Your task to perform on an android device: turn off location Image 0: 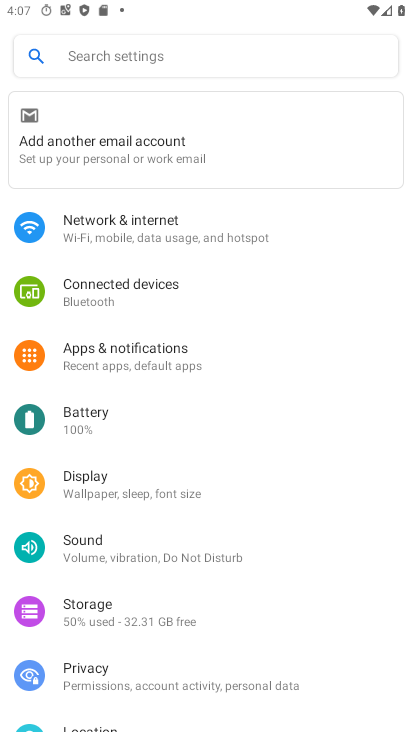
Step 0: drag from (225, 602) to (227, 166)
Your task to perform on an android device: turn off location Image 1: 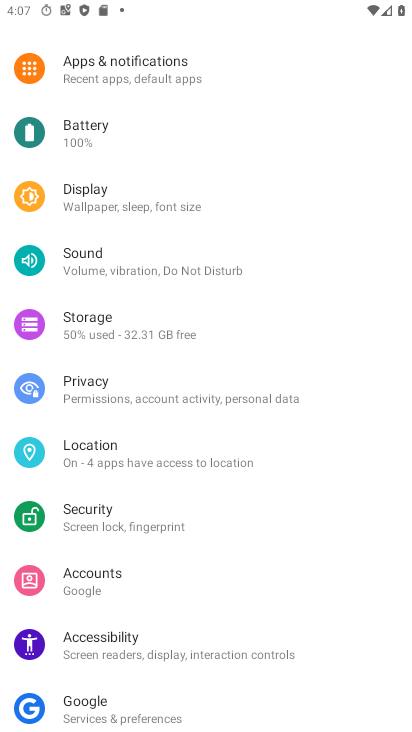
Step 1: drag from (227, 510) to (243, 159)
Your task to perform on an android device: turn off location Image 2: 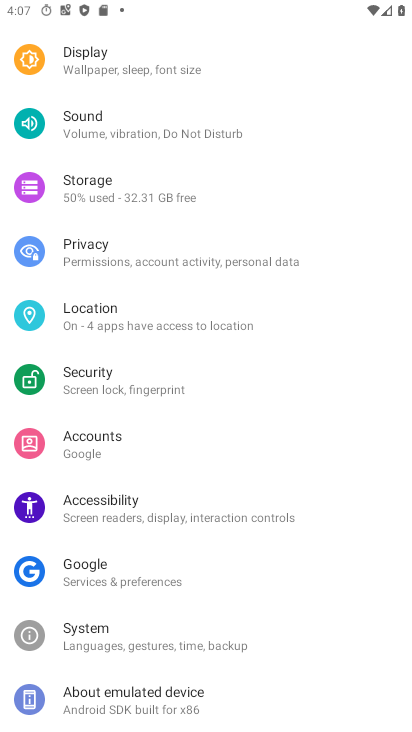
Step 2: click (91, 313)
Your task to perform on an android device: turn off location Image 3: 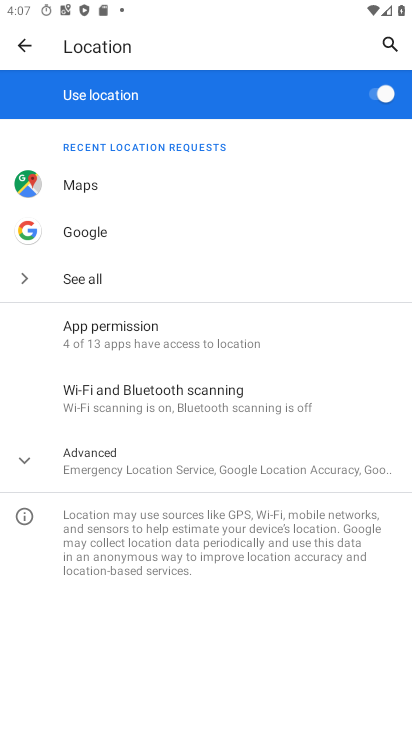
Step 3: click (385, 97)
Your task to perform on an android device: turn off location Image 4: 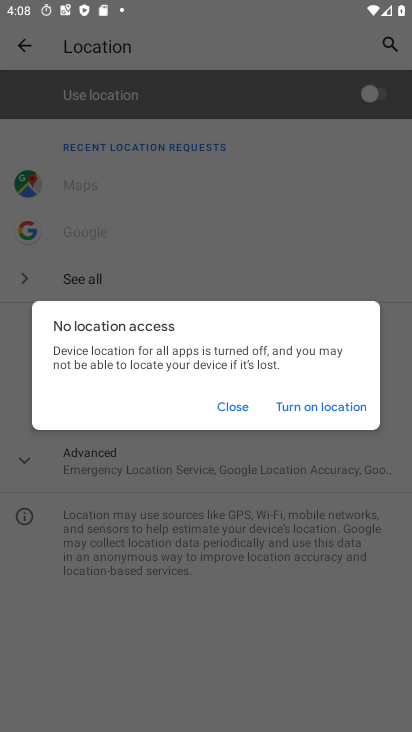
Step 4: task complete